Your task to perform on an android device: change the clock display to analog Image 0: 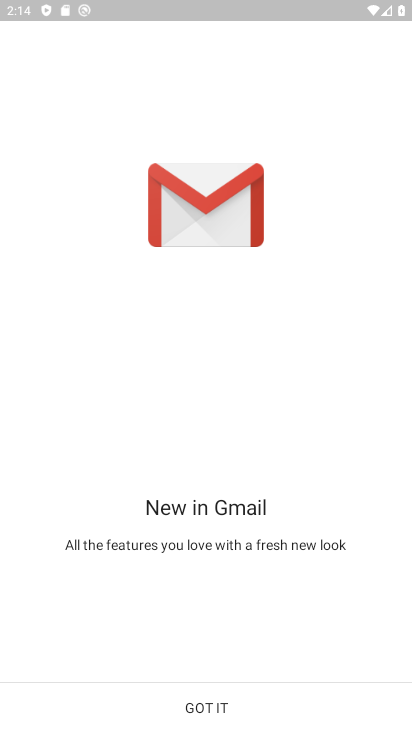
Step 0: press home button
Your task to perform on an android device: change the clock display to analog Image 1: 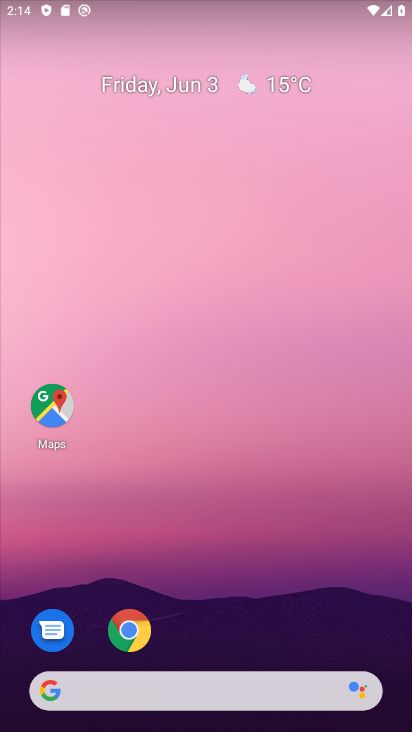
Step 1: drag from (389, 627) to (331, 75)
Your task to perform on an android device: change the clock display to analog Image 2: 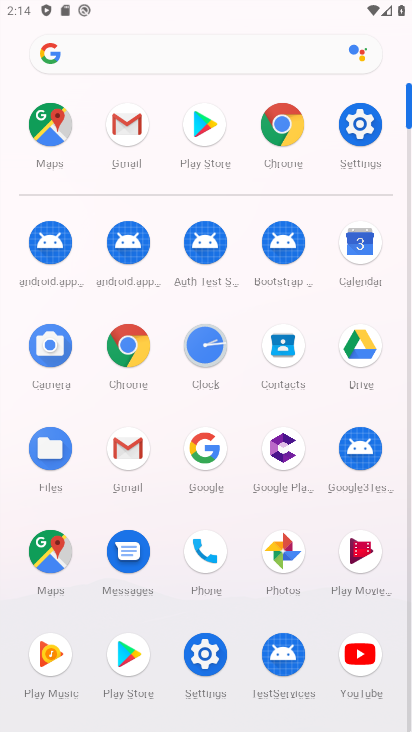
Step 2: click (216, 358)
Your task to perform on an android device: change the clock display to analog Image 3: 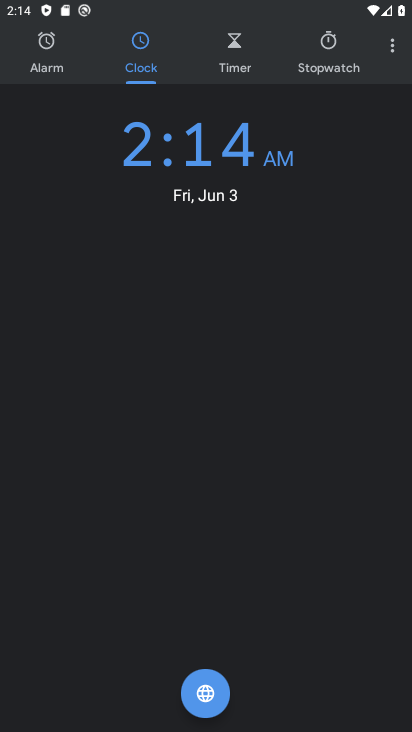
Step 3: click (395, 45)
Your task to perform on an android device: change the clock display to analog Image 4: 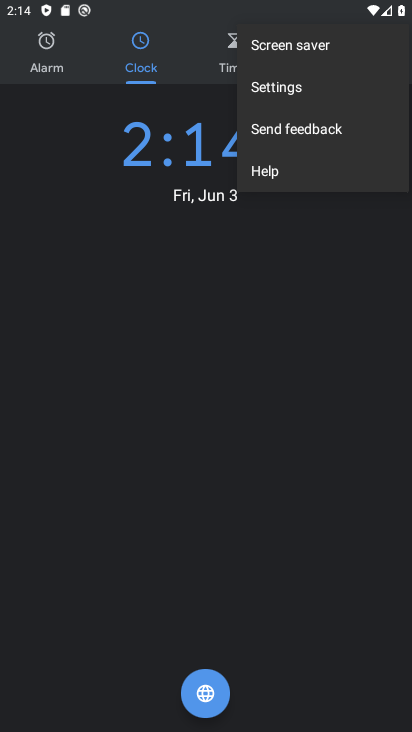
Step 4: click (302, 83)
Your task to perform on an android device: change the clock display to analog Image 5: 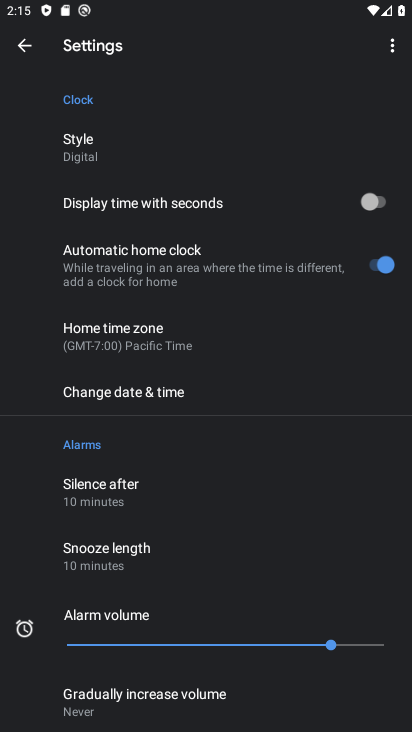
Step 5: drag from (276, 558) to (289, 422)
Your task to perform on an android device: change the clock display to analog Image 6: 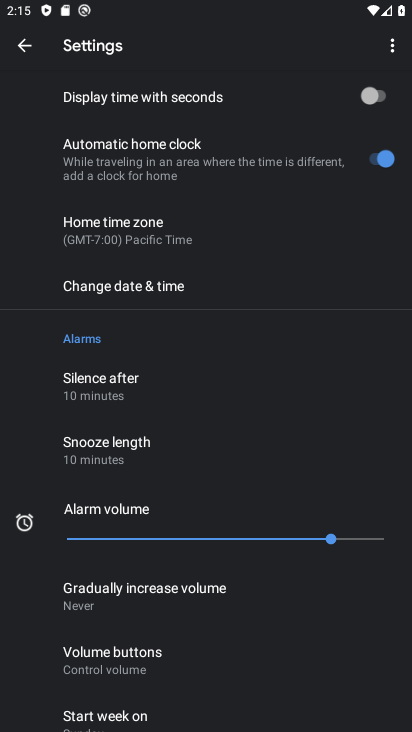
Step 6: drag from (256, 257) to (208, 685)
Your task to perform on an android device: change the clock display to analog Image 7: 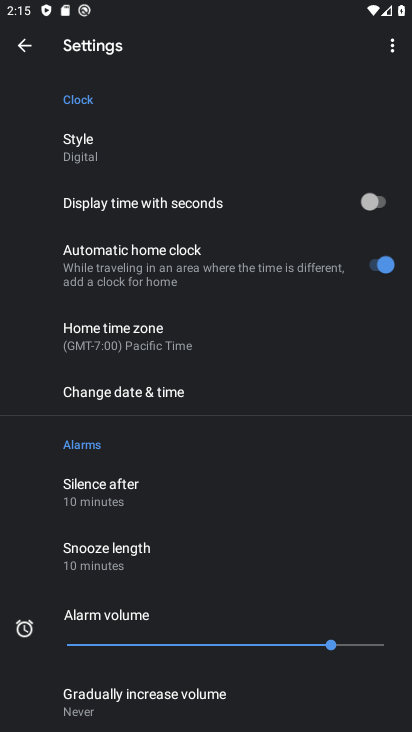
Step 7: click (95, 153)
Your task to perform on an android device: change the clock display to analog Image 8: 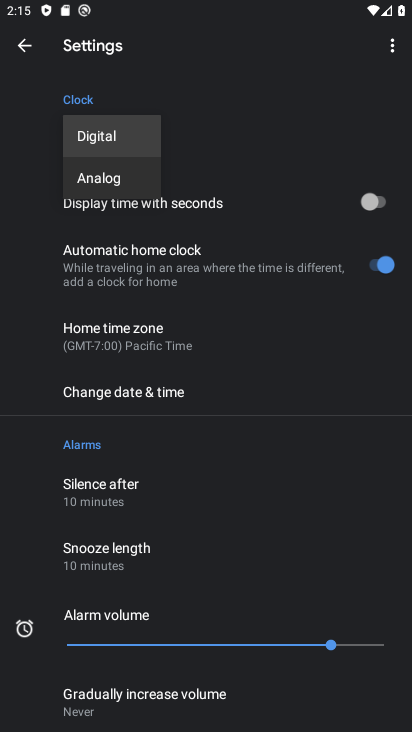
Step 8: click (120, 190)
Your task to perform on an android device: change the clock display to analog Image 9: 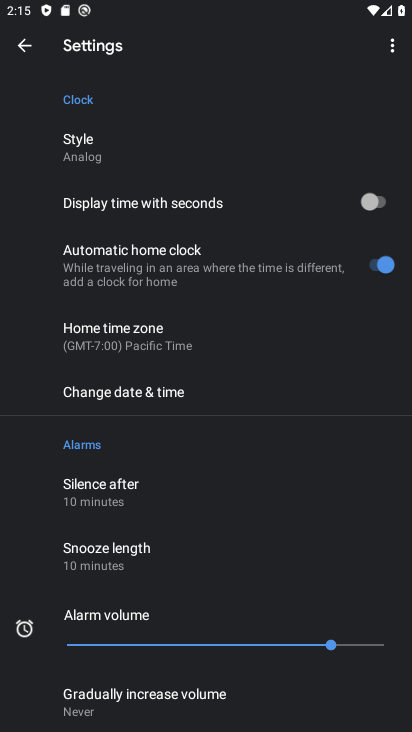
Step 9: task complete